Your task to perform on an android device: Set the phone to "Do not disturb". Image 0: 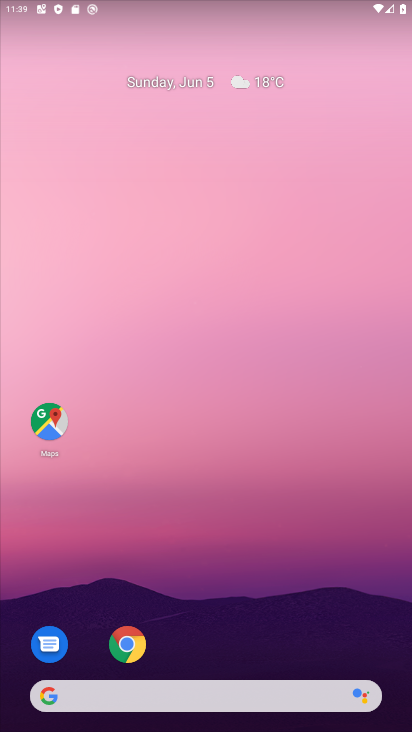
Step 0: drag from (280, 720) to (150, 183)
Your task to perform on an android device: Set the phone to "Do not disturb". Image 1: 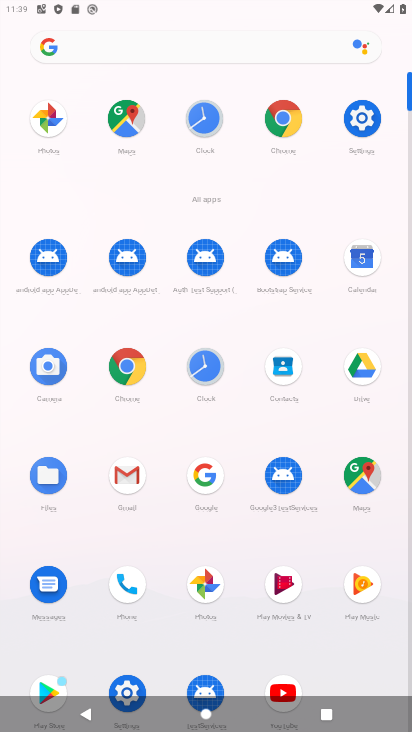
Step 1: click (363, 113)
Your task to perform on an android device: Set the phone to "Do not disturb". Image 2: 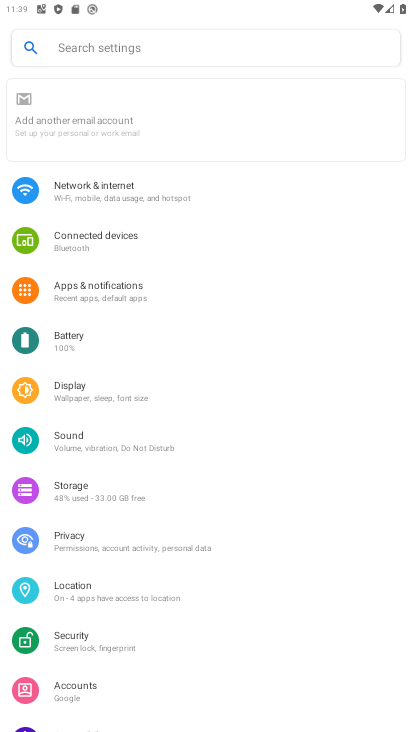
Step 2: click (100, 48)
Your task to perform on an android device: Set the phone to "Do not disturb". Image 3: 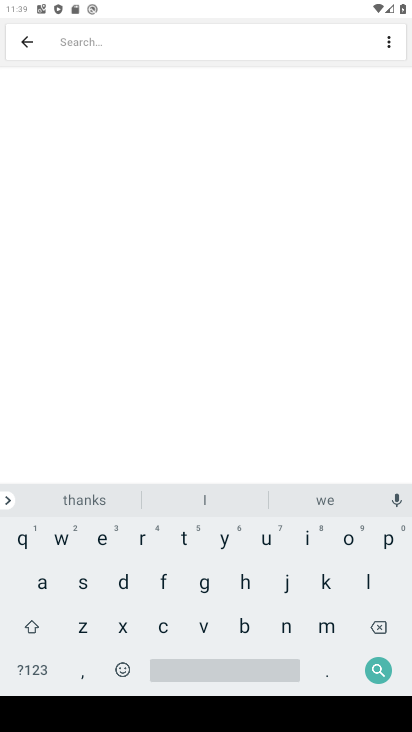
Step 3: click (122, 576)
Your task to perform on an android device: Set the phone to "Do not disturb". Image 4: 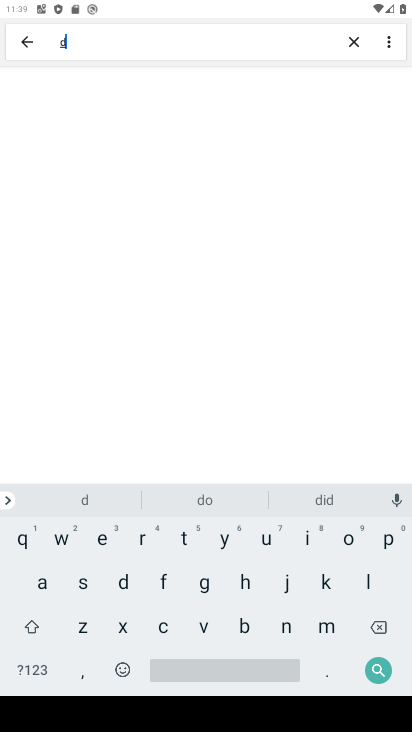
Step 4: click (279, 626)
Your task to perform on an android device: Set the phone to "Do not disturb". Image 5: 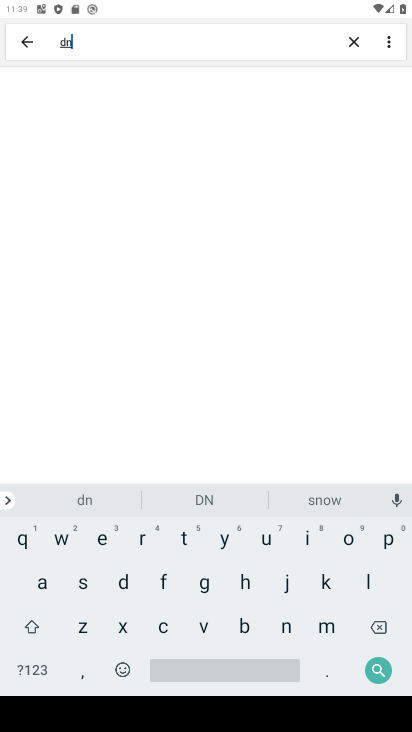
Step 5: click (130, 577)
Your task to perform on an android device: Set the phone to "Do not disturb". Image 6: 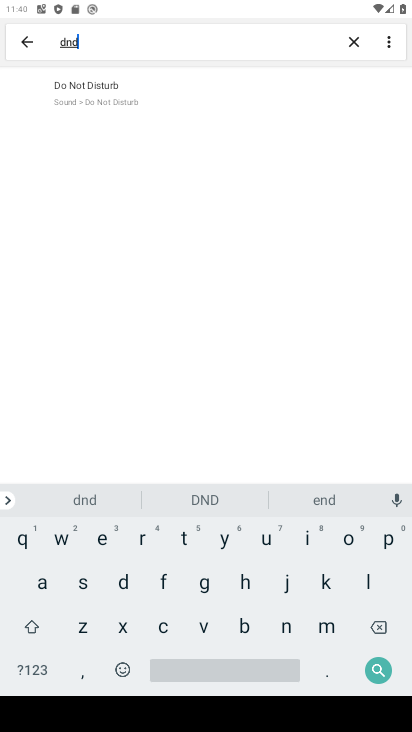
Step 6: click (112, 87)
Your task to perform on an android device: Set the phone to "Do not disturb". Image 7: 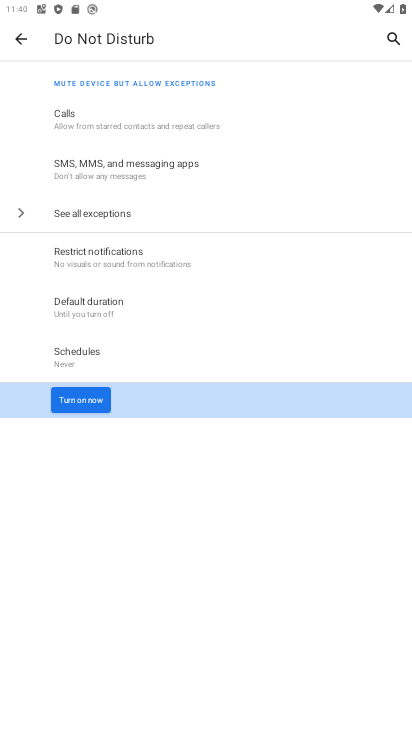
Step 7: click (82, 389)
Your task to perform on an android device: Set the phone to "Do not disturb". Image 8: 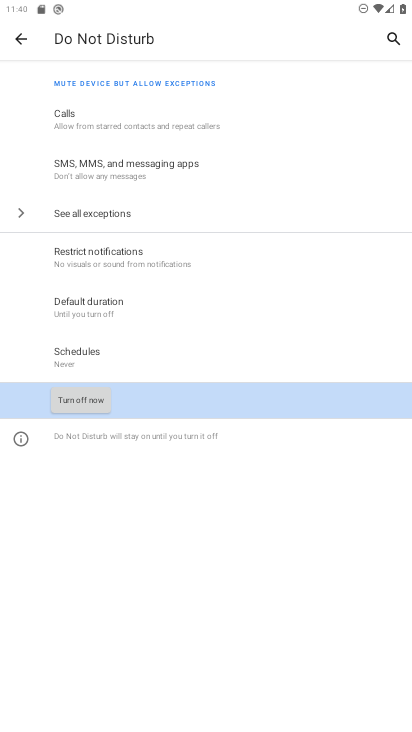
Step 8: task complete